Your task to perform on an android device: Show me the alarms in the clock app Image 0: 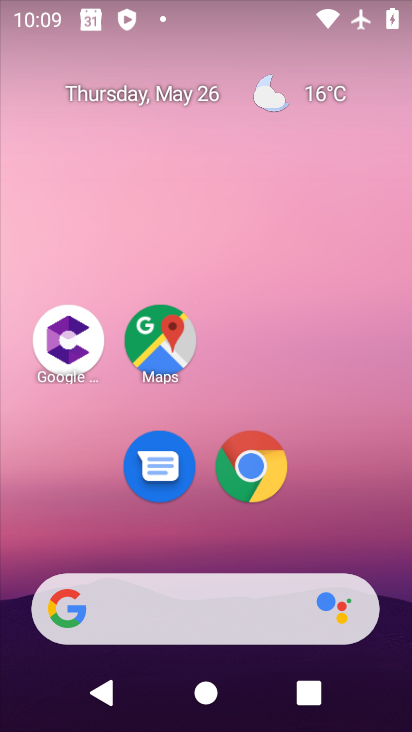
Step 0: drag from (350, 504) to (217, 101)
Your task to perform on an android device: Show me the alarms in the clock app Image 1: 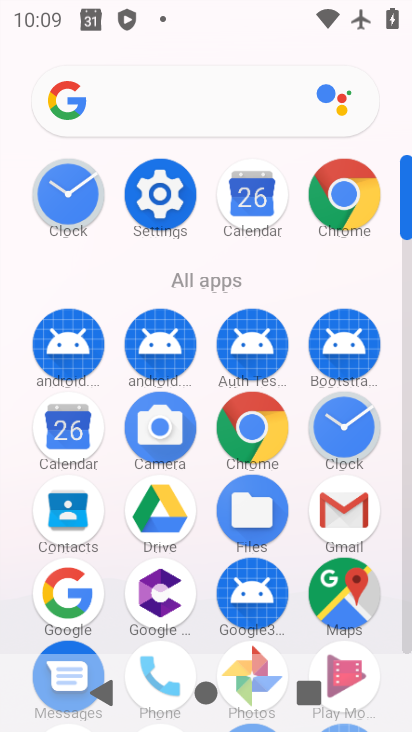
Step 1: click (349, 423)
Your task to perform on an android device: Show me the alarms in the clock app Image 2: 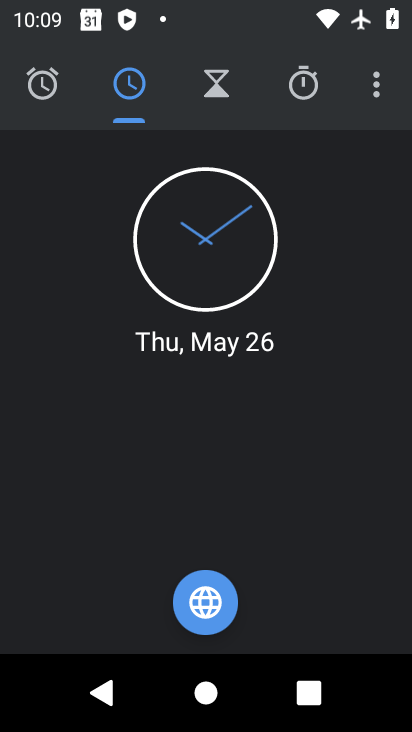
Step 2: click (48, 89)
Your task to perform on an android device: Show me the alarms in the clock app Image 3: 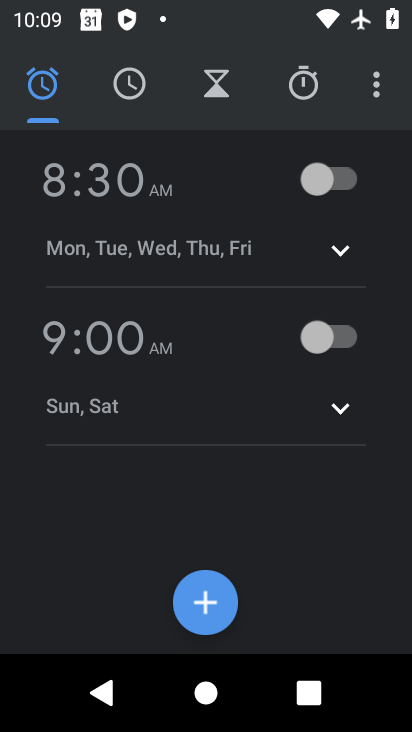
Step 3: task complete